Your task to perform on an android device: Open calendar and show me the fourth week of next month Image 0: 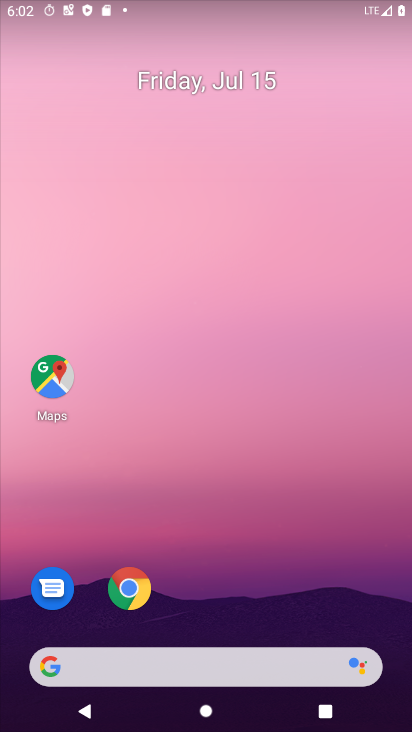
Step 0: drag from (288, 573) to (292, 175)
Your task to perform on an android device: Open calendar and show me the fourth week of next month Image 1: 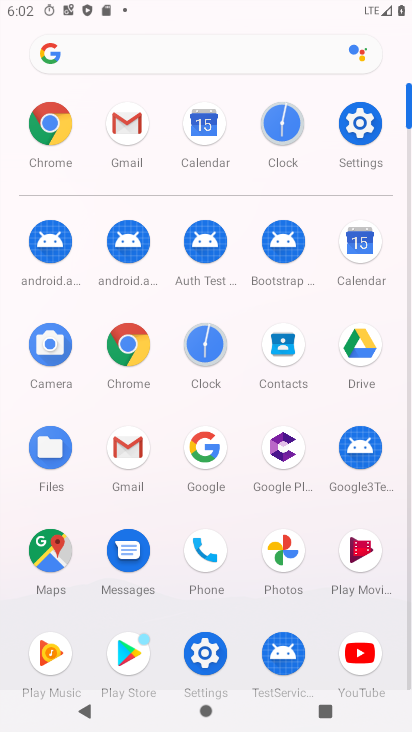
Step 1: click (351, 250)
Your task to perform on an android device: Open calendar and show me the fourth week of next month Image 2: 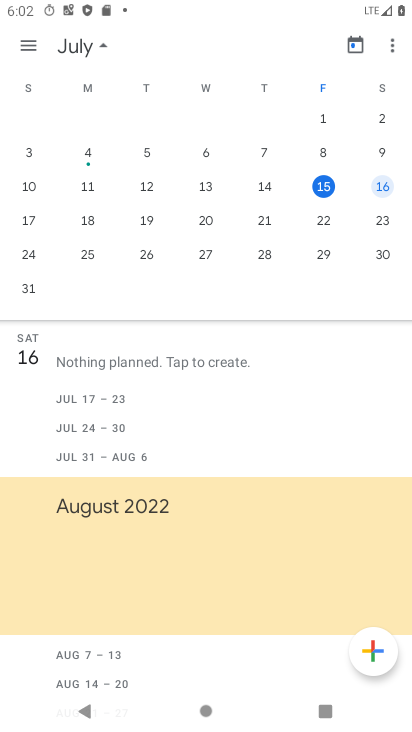
Step 2: click (99, 48)
Your task to perform on an android device: Open calendar and show me the fourth week of next month Image 3: 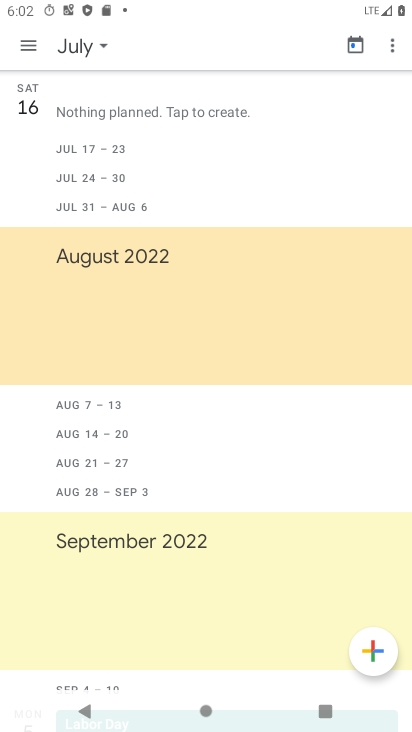
Step 3: click (96, 36)
Your task to perform on an android device: Open calendar and show me the fourth week of next month Image 4: 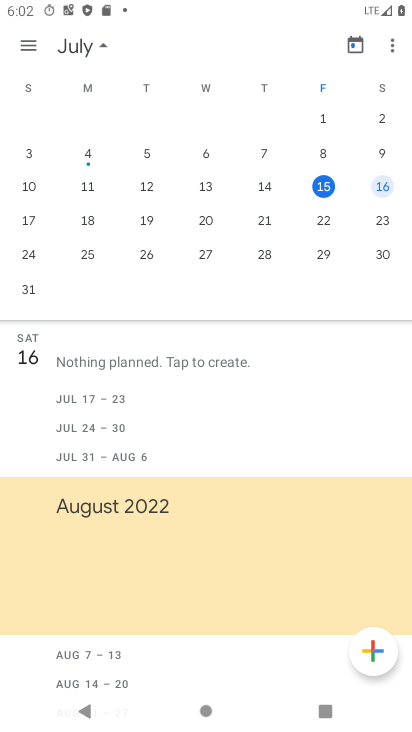
Step 4: drag from (344, 205) to (46, 214)
Your task to perform on an android device: Open calendar and show me the fourth week of next month Image 5: 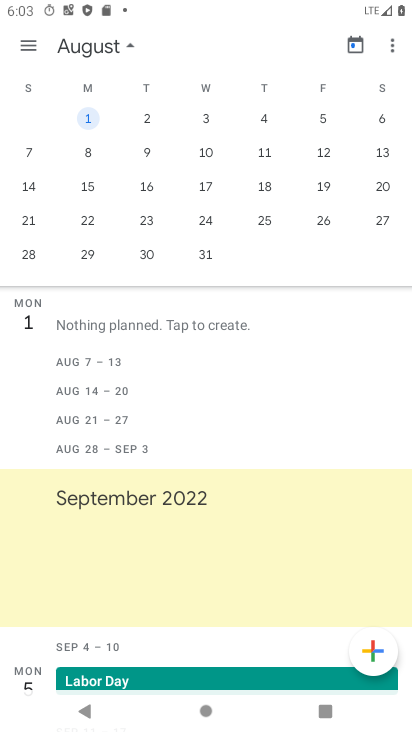
Step 5: click (200, 222)
Your task to perform on an android device: Open calendar and show me the fourth week of next month Image 6: 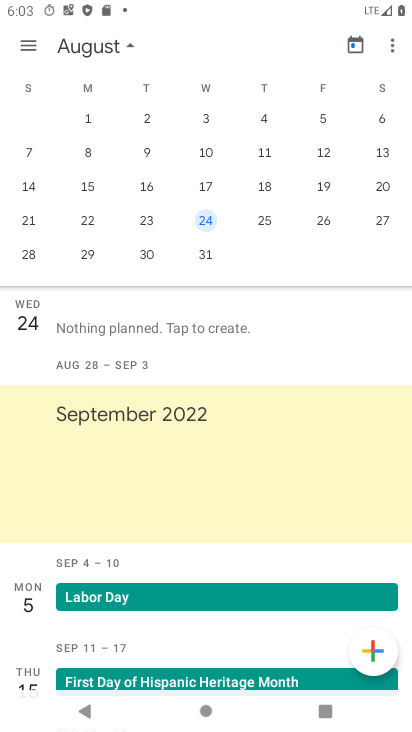
Step 6: task complete